Your task to perform on an android device: turn on improve location accuracy Image 0: 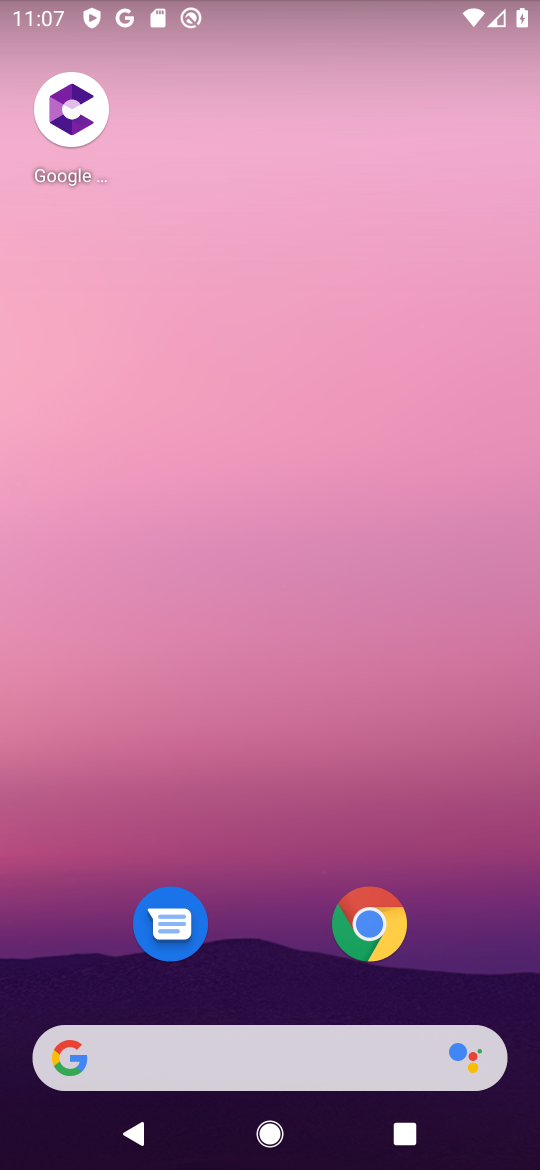
Step 0: press home button
Your task to perform on an android device: turn on improve location accuracy Image 1: 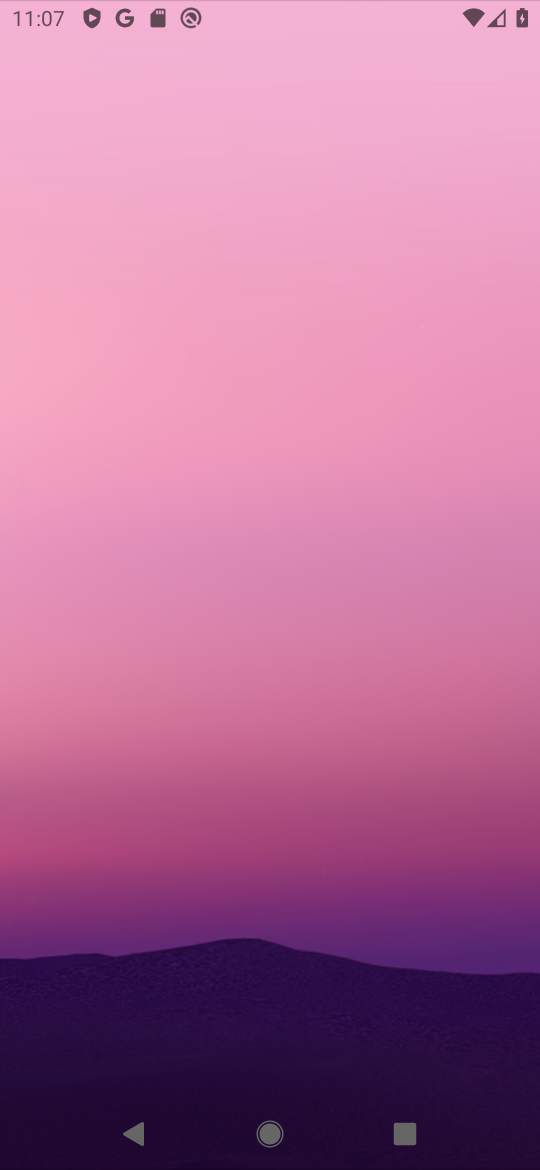
Step 1: drag from (244, 981) to (284, 312)
Your task to perform on an android device: turn on improve location accuracy Image 2: 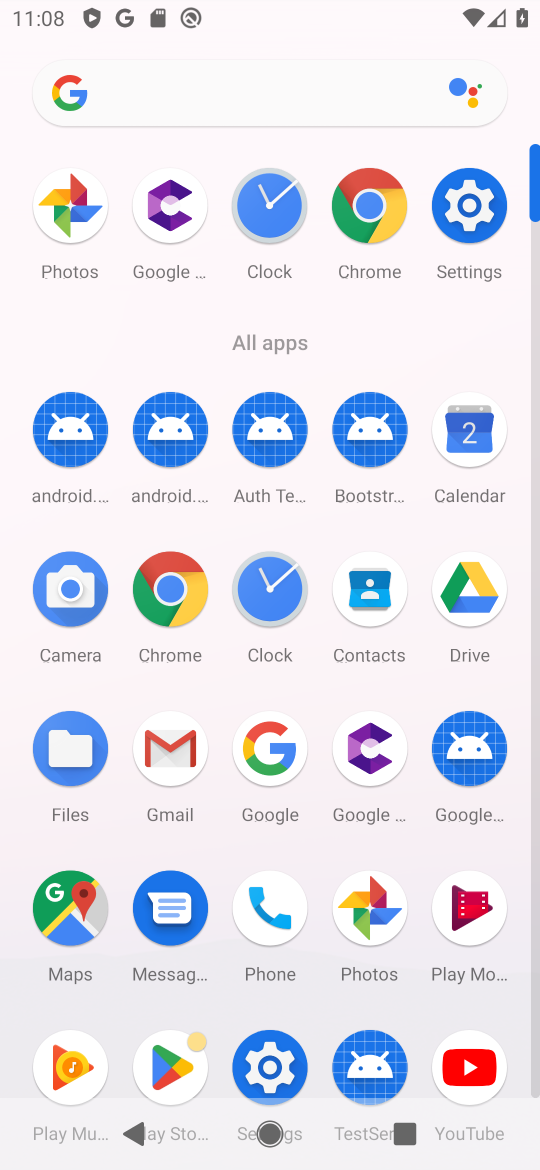
Step 2: click (477, 199)
Your task to perform on an android device: turn on improve location accuracy Image 3: 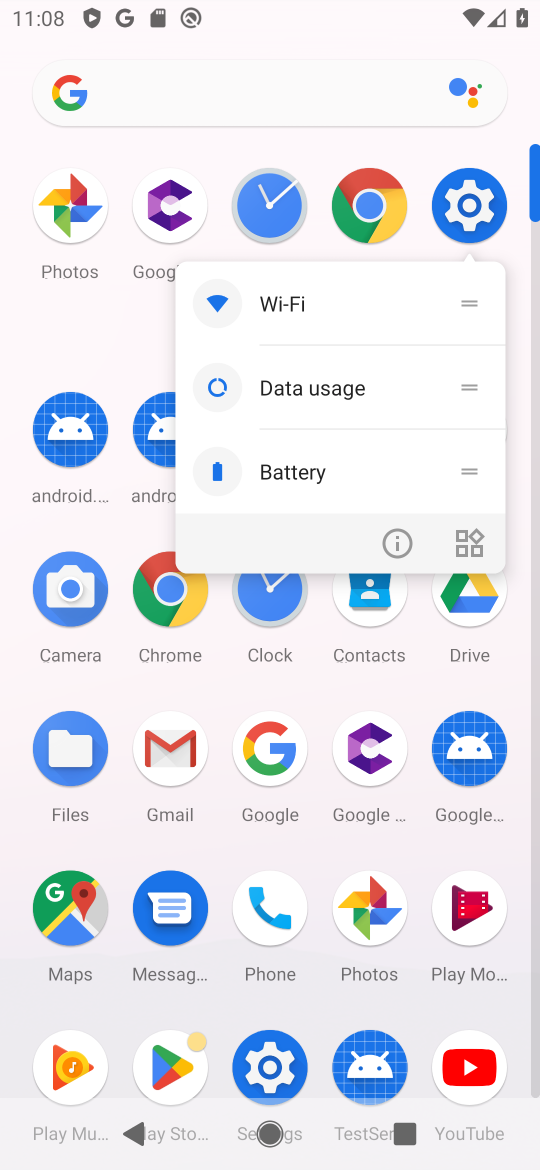
Step 3: click (477, 199)
Your task to perform on an android device: turn on improve location accuracy Image 4: 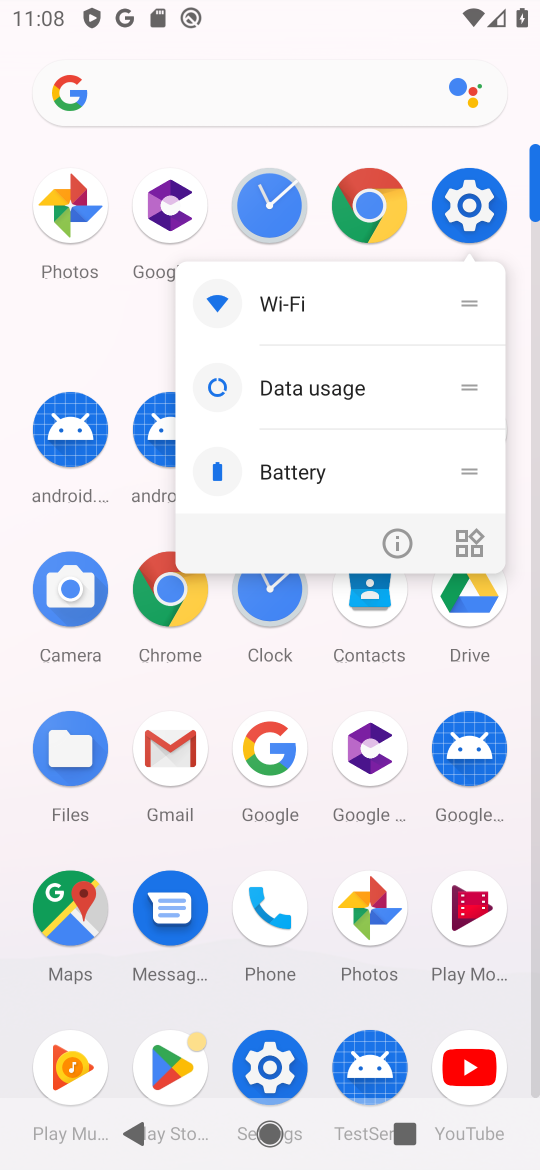
Step 4: click (477, 199)
Your task to perform on an android device: turn on improve location accuracy Image 5: 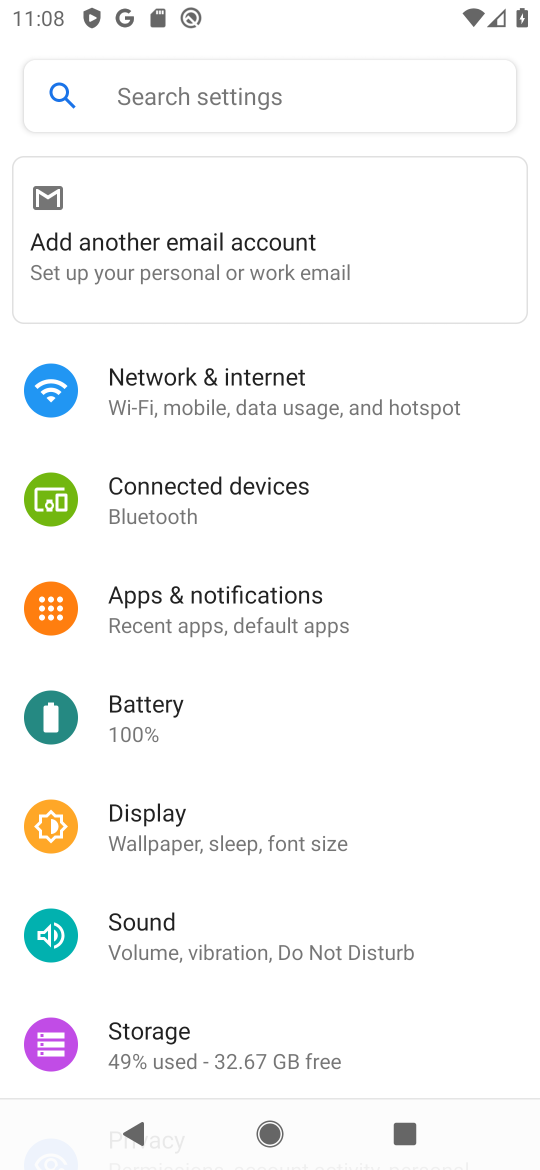
Step 5: drag from (206, 935) to (312, 274)
Your task to perform on an android device: turn on improve location accuracy Image 6: 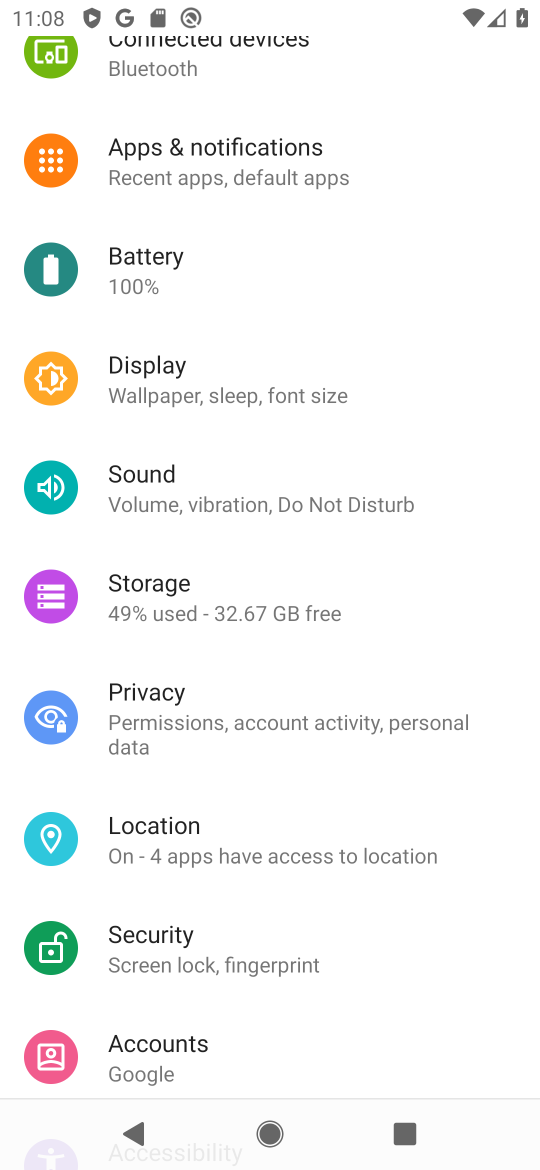
Step 6: click (213, 819)
Your task to perform on an android device: turn on improve location accuracy Image 7: 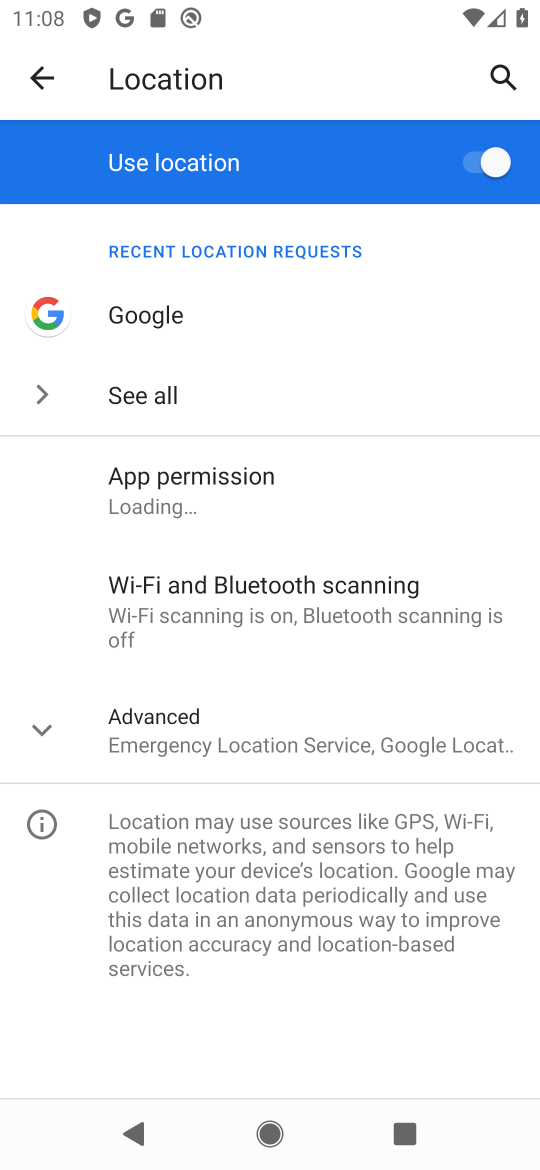
Step 7: click (225, 721)
Your task to perform on an android device: turn on improve location accuracy Image 8: 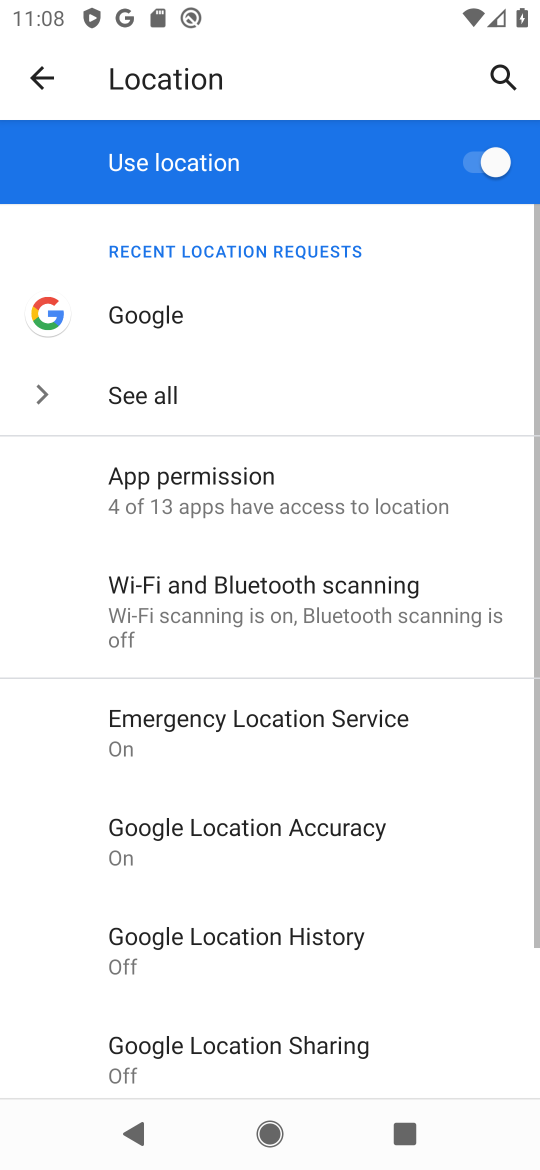
Step 8: click (284, 835)
Your task to perform on an android device: turn on improve location accuracy Image 9: 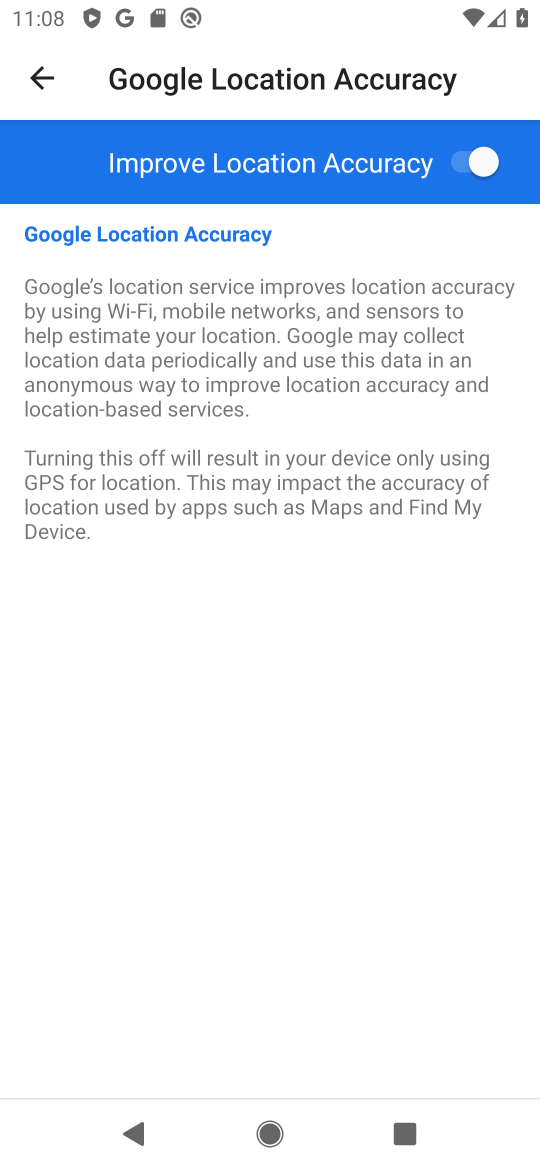
Step 9: click (465, 151)
Your task to perform on an android device: turn on improve location accuracy Image 10: 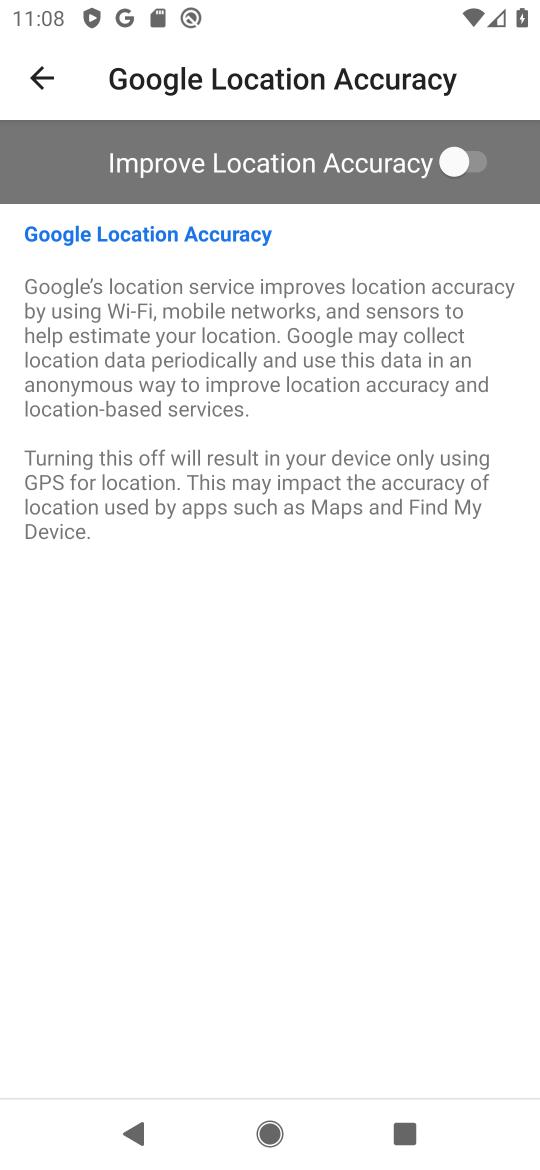
Step 10: click (483, 163)
Your task to perform on an android device: turn on improve location accuracy Image 11: 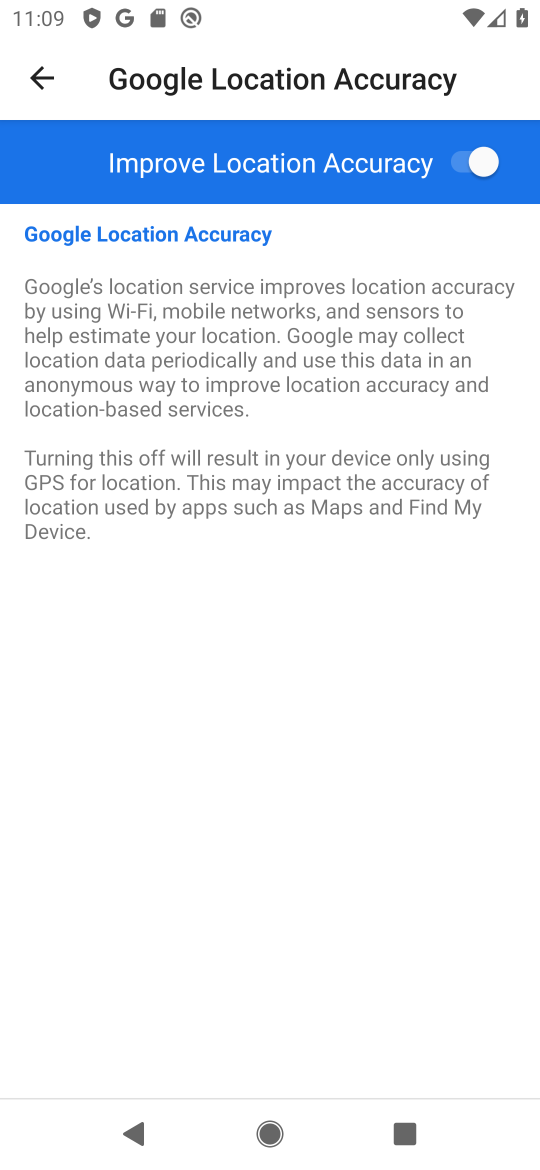
Step 11: task complete